Your task to perform on an android device: Go to Google maps Image 0: 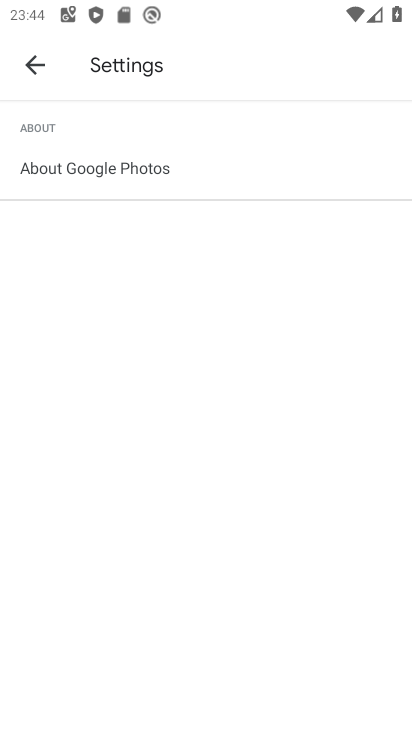
Step 0: press home button
Your task to perform on an android device: Go to Google maps Image 1: 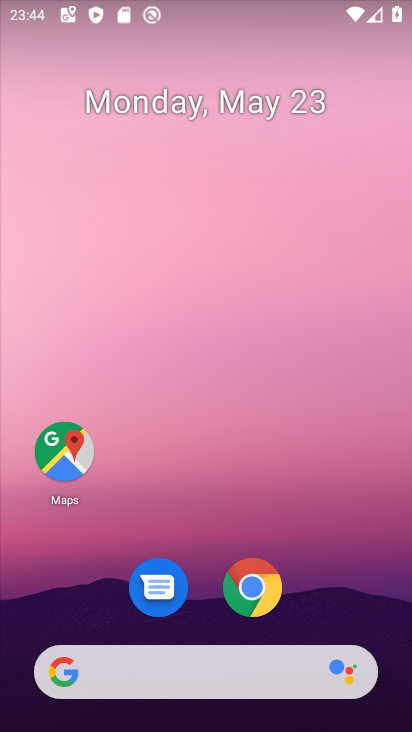
Step 1: click (71, 470)
Your task to perform on an android device: Go to Google maps Image 2: 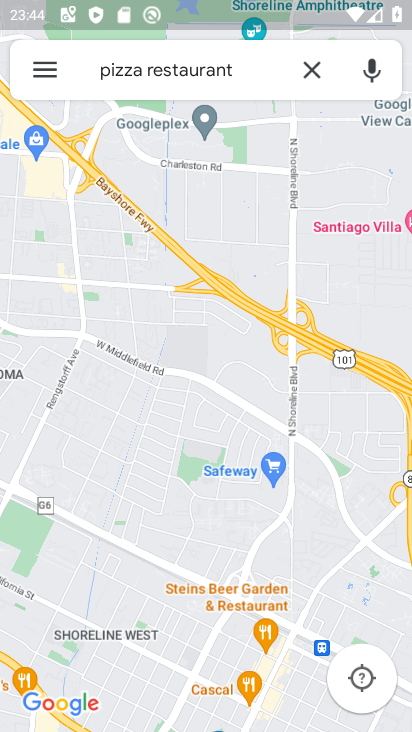
Step 2: task complete